Your task to perform on an android device: toggle priority inbox in the gmail app Image 0: 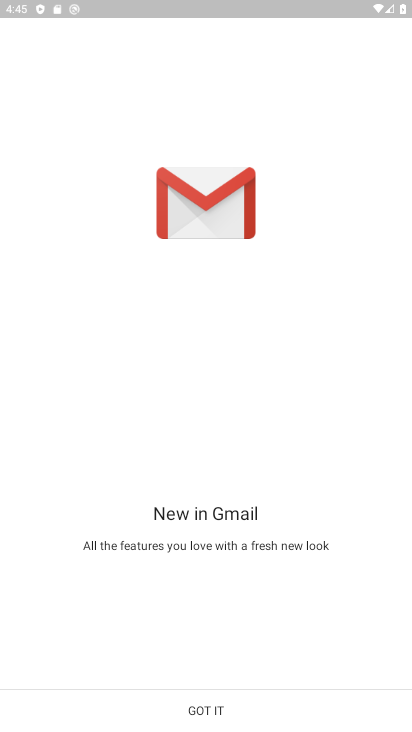
Step 0: press home button
Your task to perform on an android device: toggle priority inbox in the gmail app Image 1: 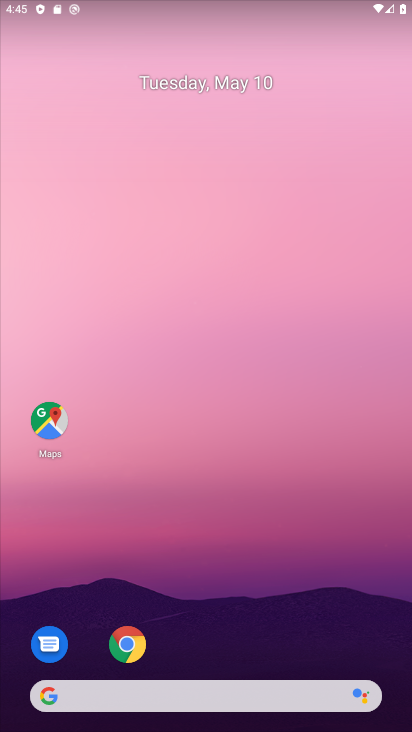
Step 1: drag from (214, 654) to (259, 77)
Your task to perform on an android device: toggle priority inbox in the gmail app Image 2: 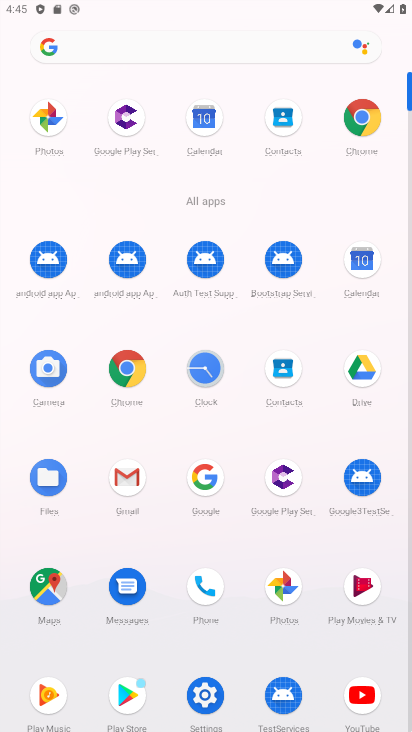
Step 2: click (127, 474)
Your task to perform on an android device: toggle priority inbox in the gmail app Image 3: 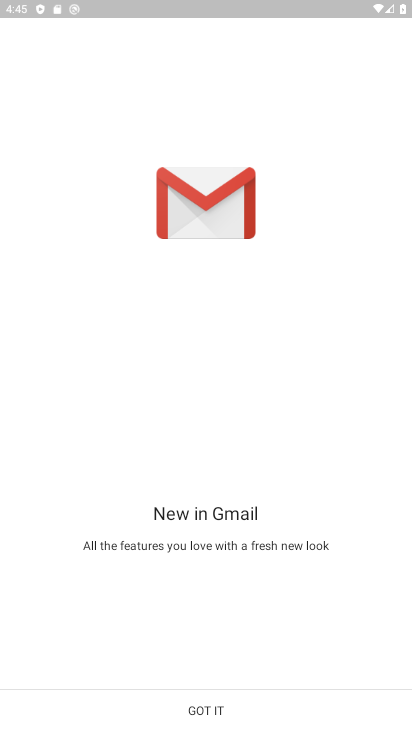
Step 3: click (208, 708)
Your task to perform on an android device: toggle priority inbox in the gmail app Image 4: 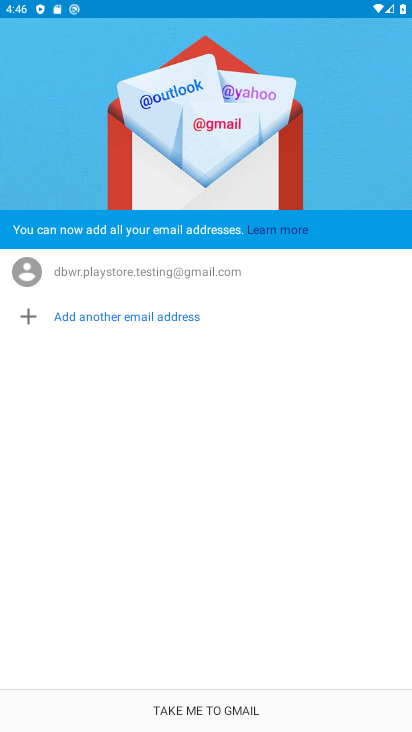
Step 4: click (198, 716)
Your task to perform on an android device: toggle priority inbox in the gmail app Image 5: 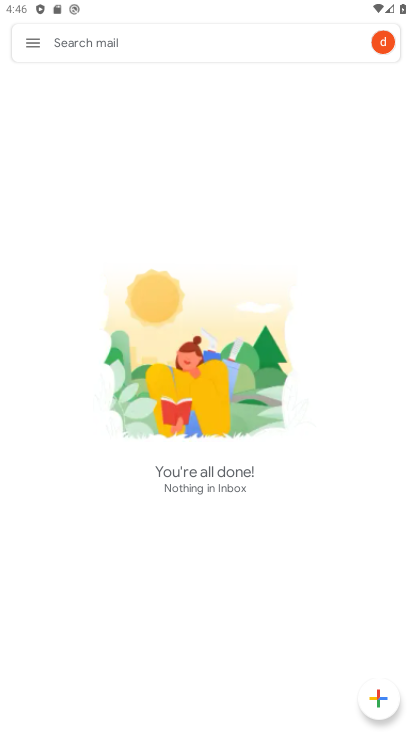
Step 5: click (31, 43)
Your task to perform on an android device: toggle priority inbox in the gmail app Image 6: 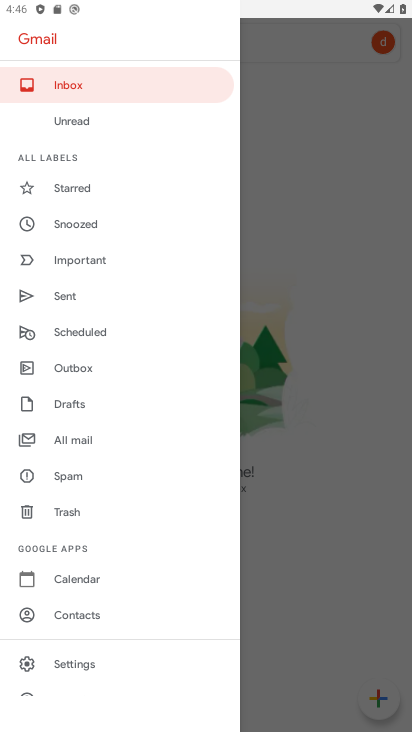
Step 6: drag from (105, 652) to (142, 160)
Your task to perform on an android device: toggle priority inbox in the gmail app Image 7: 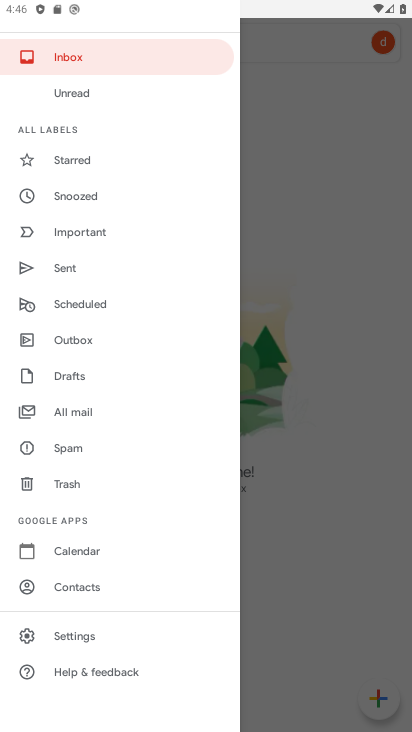
Step 7: click (104, 631)
Your task to perform on an android device: toggle priority inbox in the gmail app Image 8: 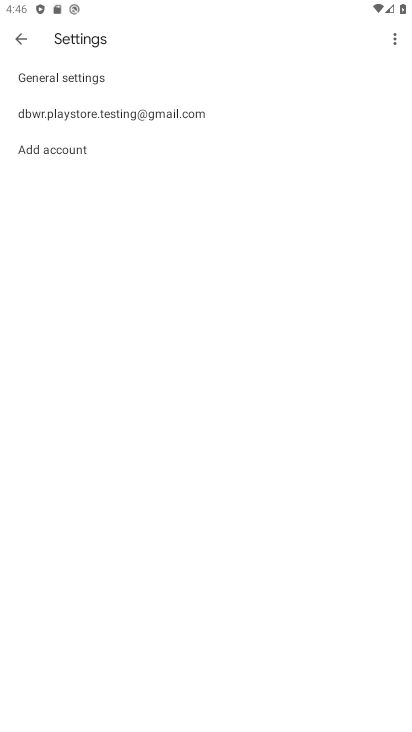
Step 8: click (137, 117)
Your task to perform on an android device: toggle priority inbox in the gmail app Image 9: 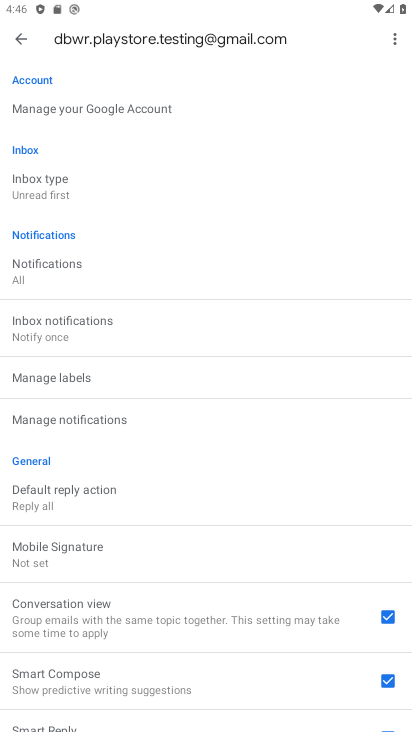
Step 9: click (66, 180)
Your task to perform on an android device: toggle priority inbox in the gmail app Image 10: 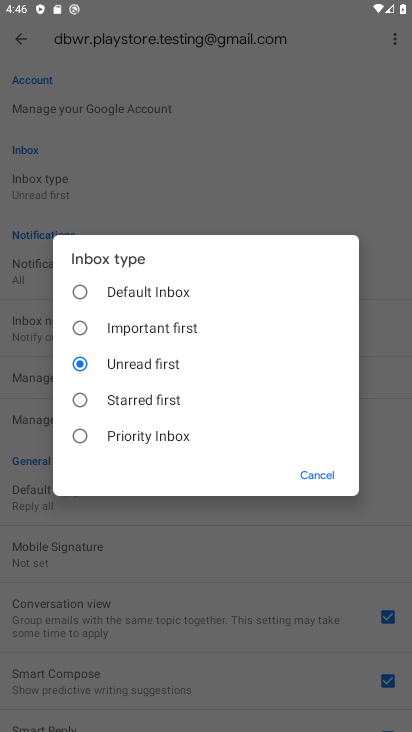
Step 10: click (84, 429)
Your task to perform on an android device: toggle priority inbox in the gmail app Image 11: 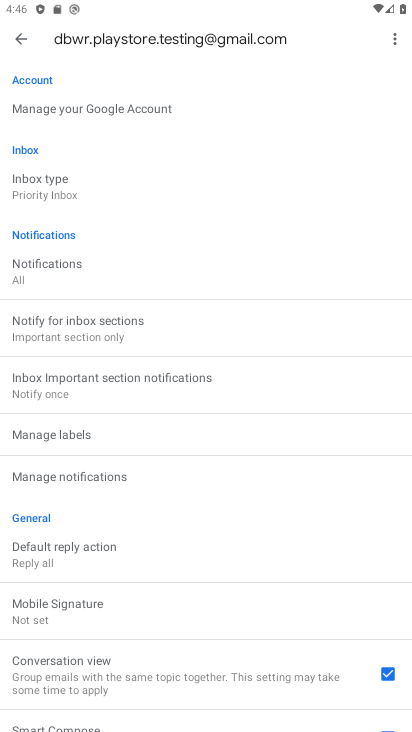
Step 11: task complete